Your task to perform on an android device: Open a new Chrome incognito tab Image 0: 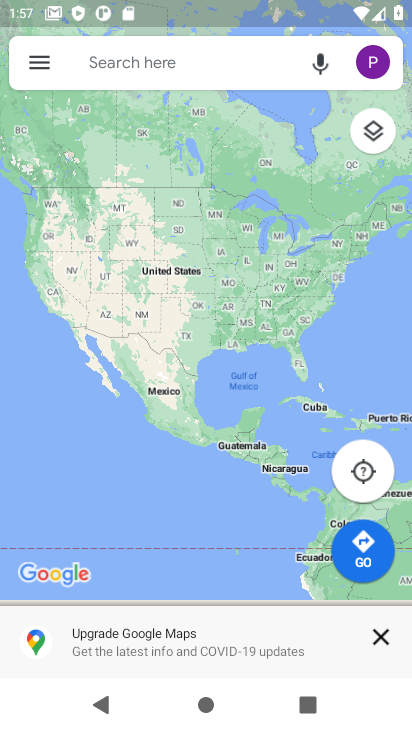
Step 0: press home button
Your task to perform on an android device: Open a new Chrome incognito tab Image 1: 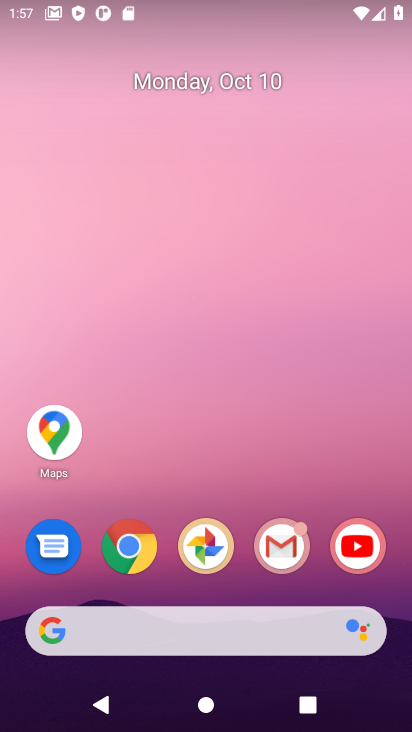
Step 1: click (130, 552)
Your task to perform on an android device: Open a new Chrome incognito tab Image 2: 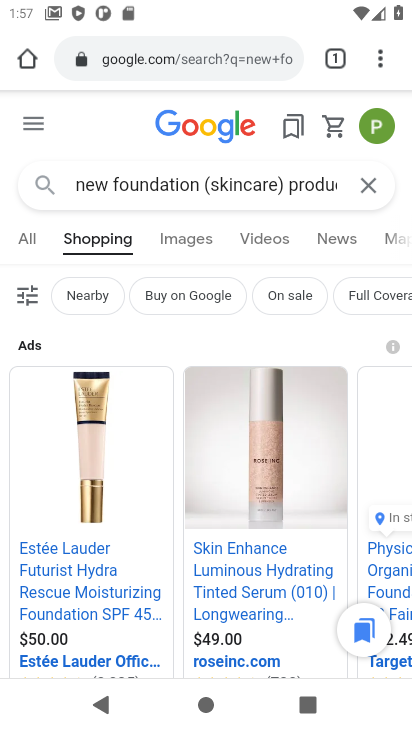
Step 2: click (339, 62)
Your task to perform on an android device: Open a new Chrome incognito tab Image 3: 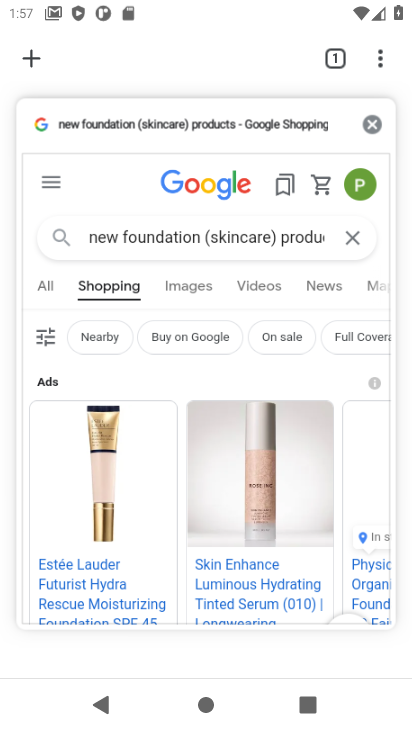
Step 3: click (38, 58)
Your task to perform on an android device: Open a new Chrome incognito tab Image 4: 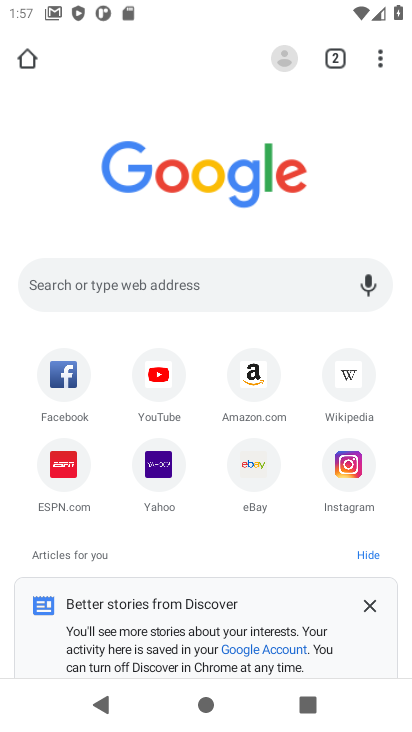
Step 4: click (371, 60)
Your task to perform on an android device: Open a new Chrome incognito tab Image 5: 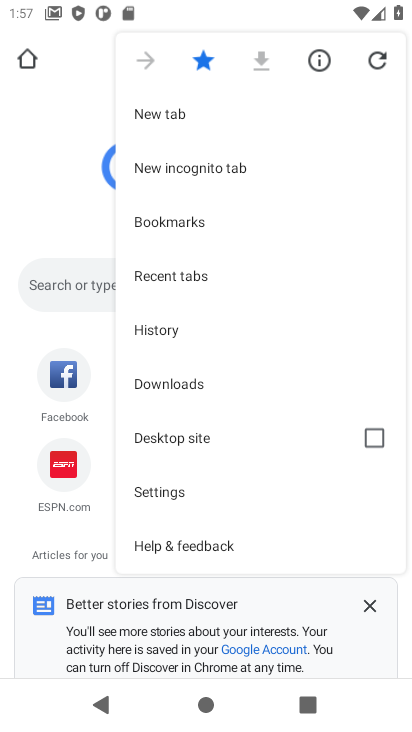
Step 5: click (246, 163)
Your task to perform on an android device: Open a new Chrome incognito tab Image 6: 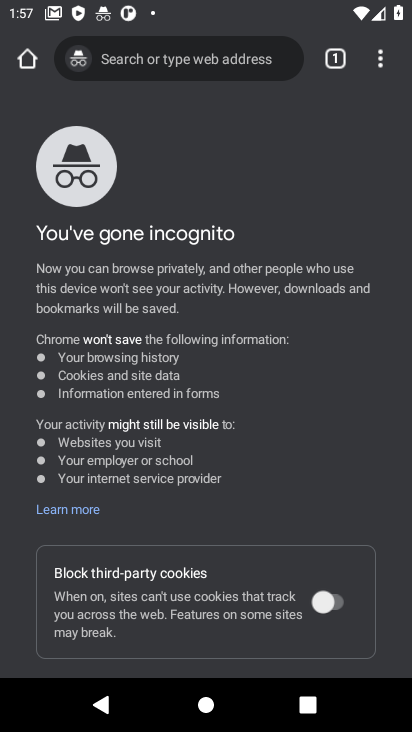
Step 6: task complete